Your task to perform on an android device: check storage Image 0: 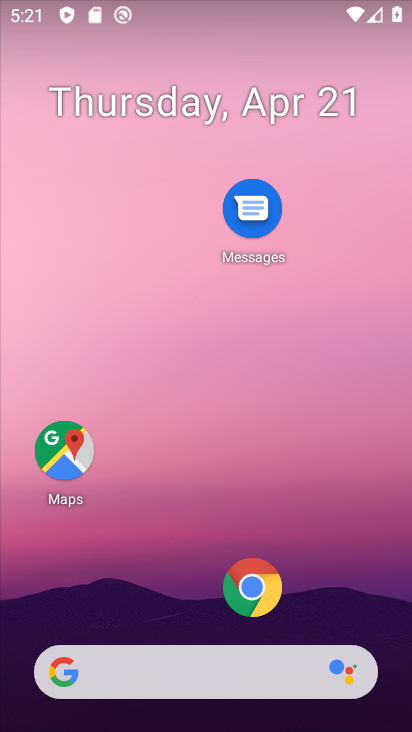
Step 0: press home button
Your task to perform on an android device: check storage Image 1: 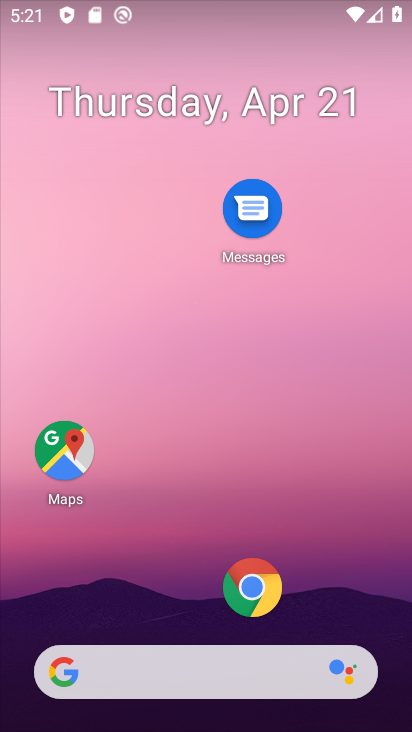
Step 1: drag from (198, 620) to (197, 102)
Your task to perform on an android device: check storage Image 2: 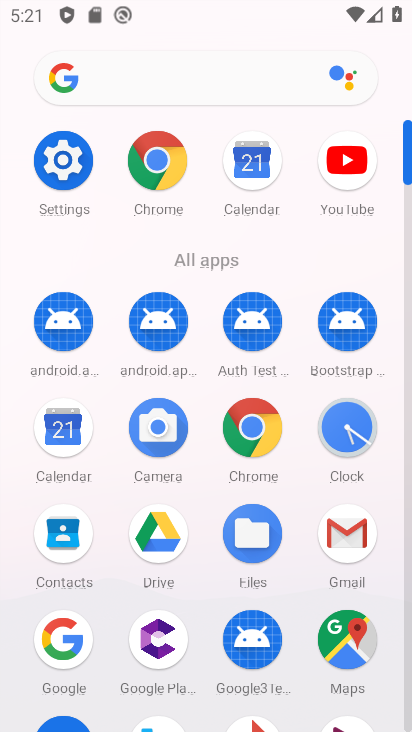
Step 2: click (56, 153)
Your task to perform on an android device: check storage Image 3: 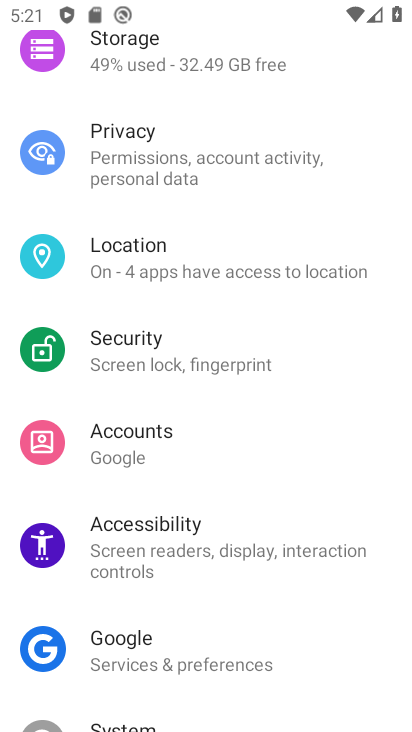
Step 3: click (168, 43)
Your task to perform on an android device: check storage Image 4: 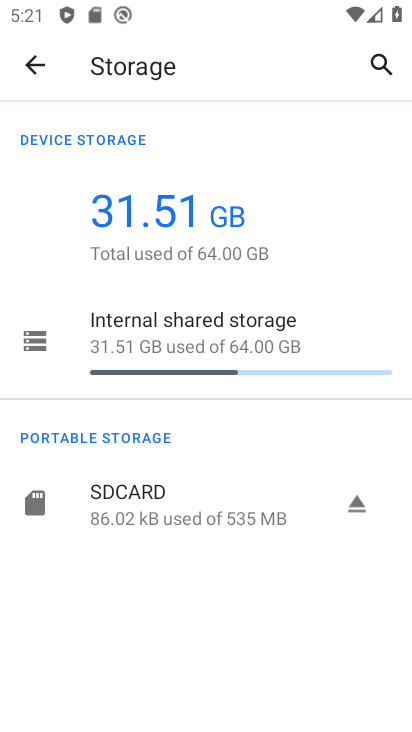
Step 4: task complete